Your task to perform on an android device: clear all cookies in the chrome app Image 0: 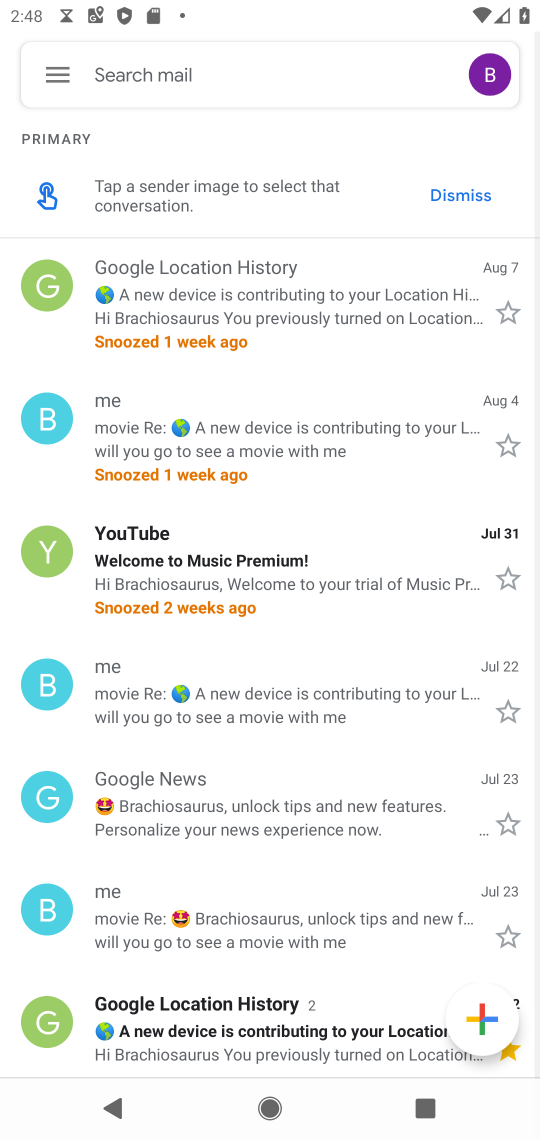
Step 0: press home button
Your task to perform on an android device: clear all cookies in the chrome app Image 1: 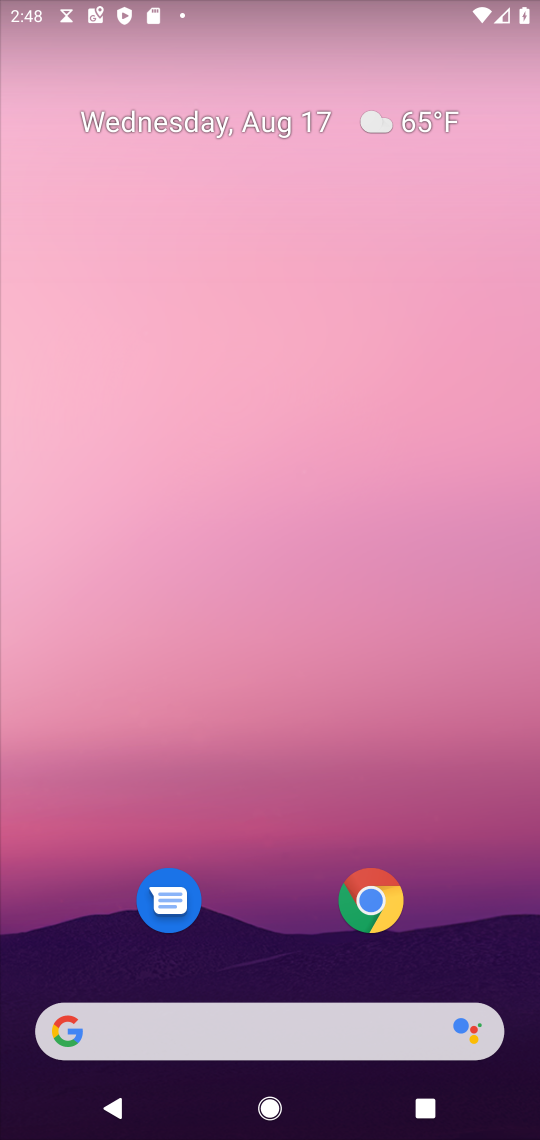
Step 1: click (379, 901)
Your task to perform on an android device: clear all cookies in the chrome app Image 2: 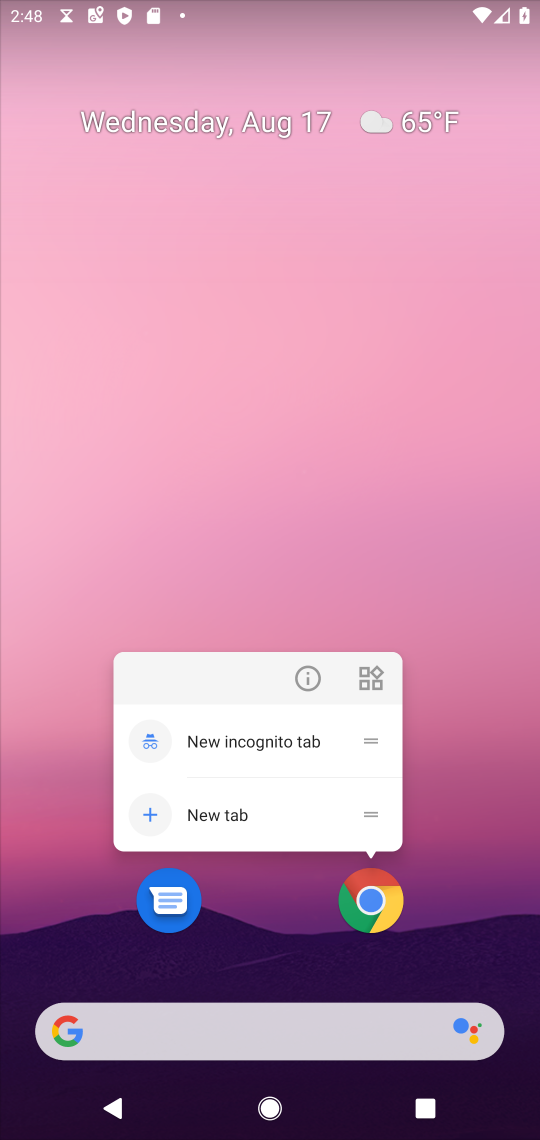
Step 2: click (379, 901)
Your task to perform on an android device: clear all cookies in the chrome app Image 3: 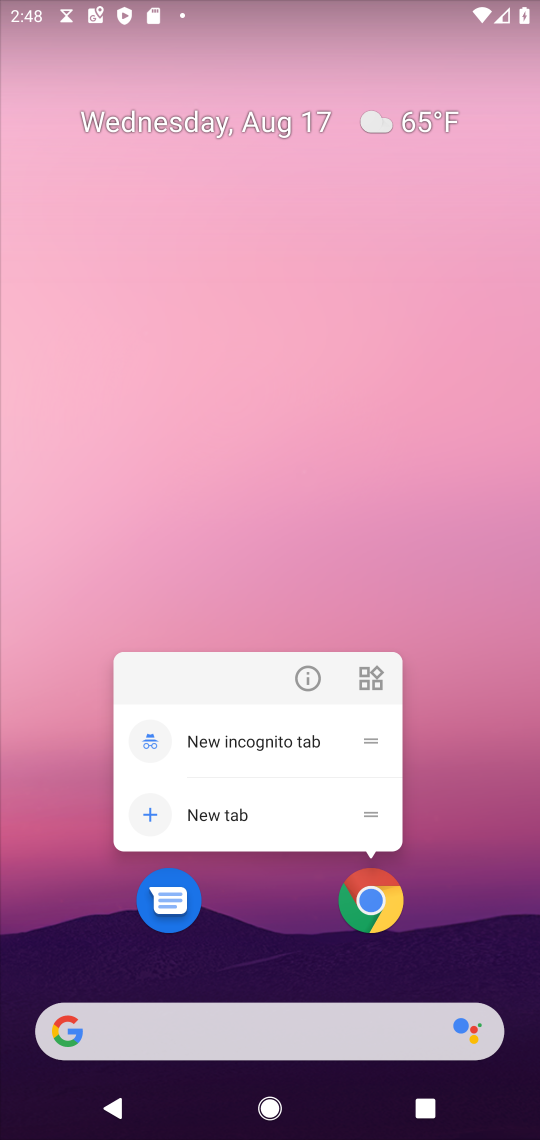
Step 3: click (379, 899)
Your task to perform on an android device: clear all cookies in the chrome app Image 4: 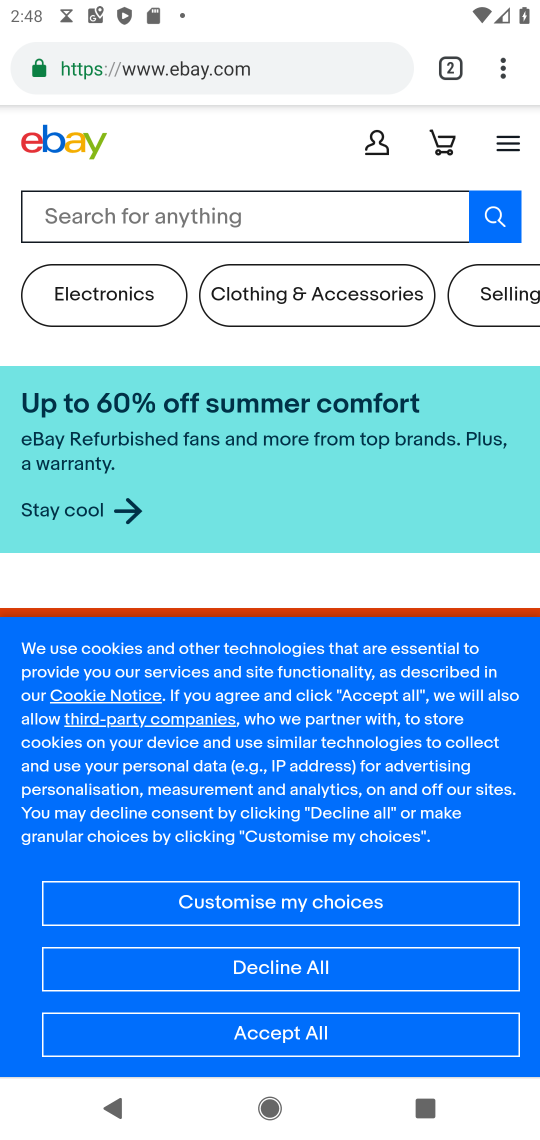
Step 4: drag from (502, 67) to (298, 905)
Your task to perform on an android device: clear all cookies in the chrome app Image 5: 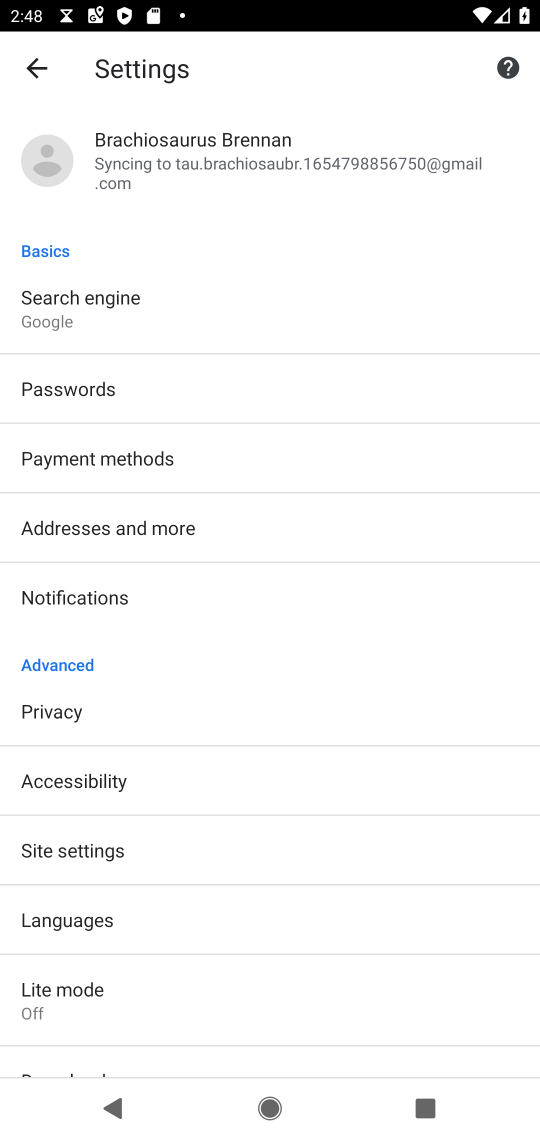
Step 5: drag from (168, 964) to (412, 300)
Your task to perform on an android device: clear all cookies in the chrome app Image 6: 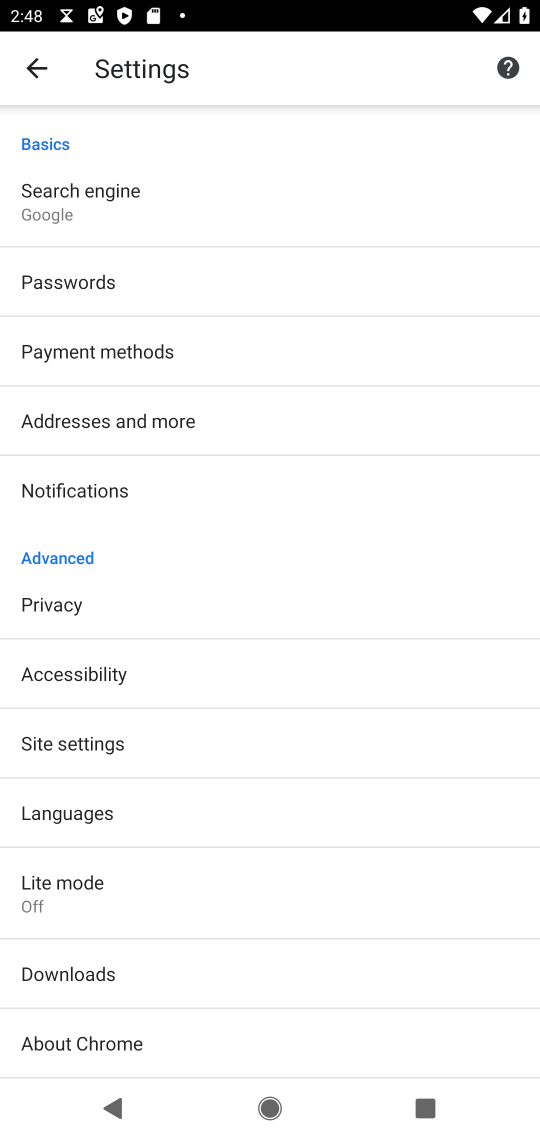
Step 6: click (71, 609)
Your task to perform on an android device: clear all cookies in the chrome app Image 7: 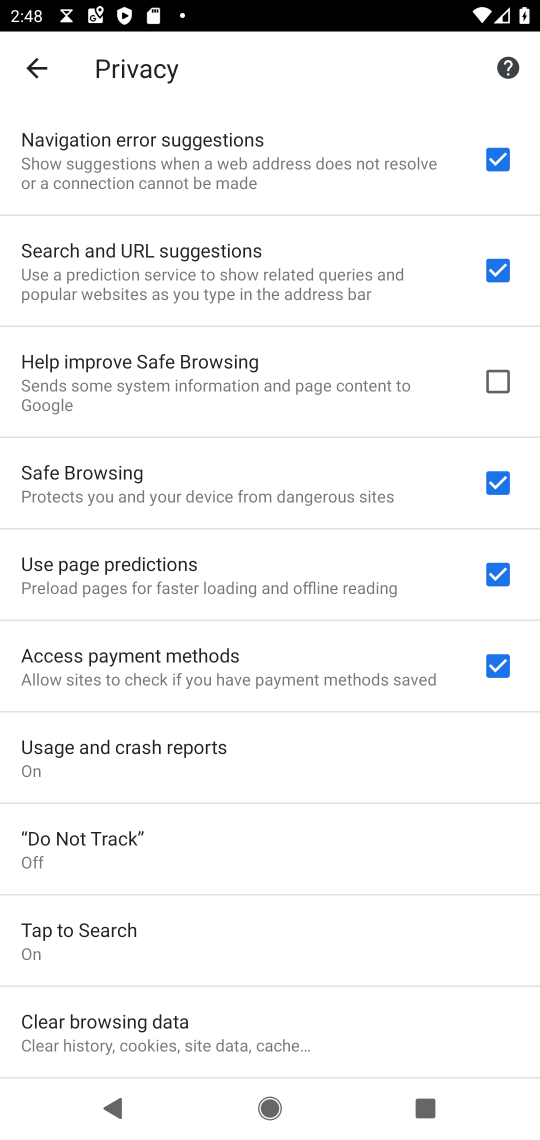
Step 7: drag from (301, 1021) to (348, 187)
Your task to perform on an android device: clear all cookies in the chrome app Image 8: 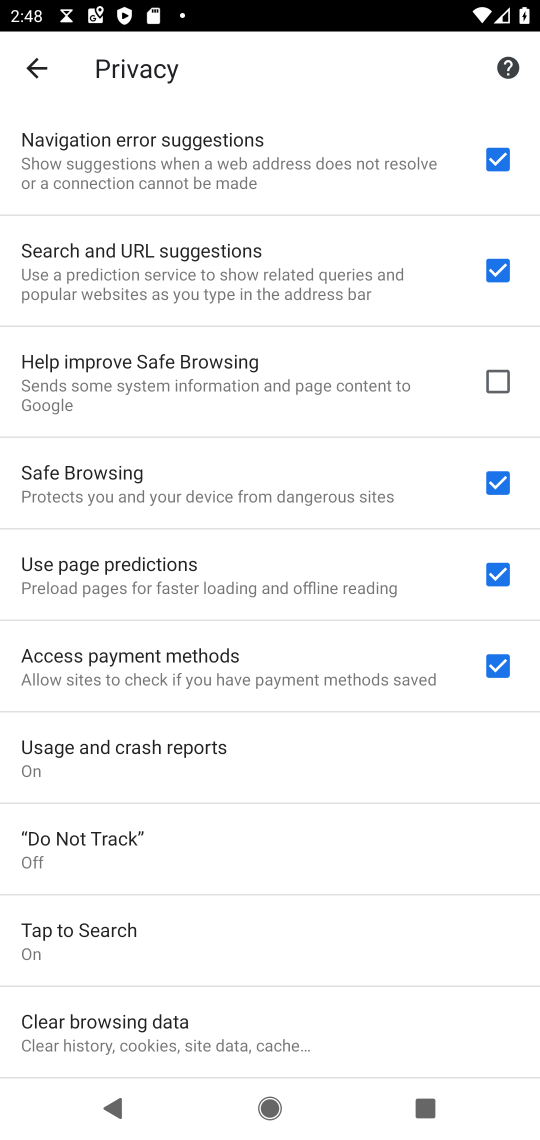
Step 8: click (248, 1043)
Your task to perform on an android device: clear all cookies in the chrome app Image 9: 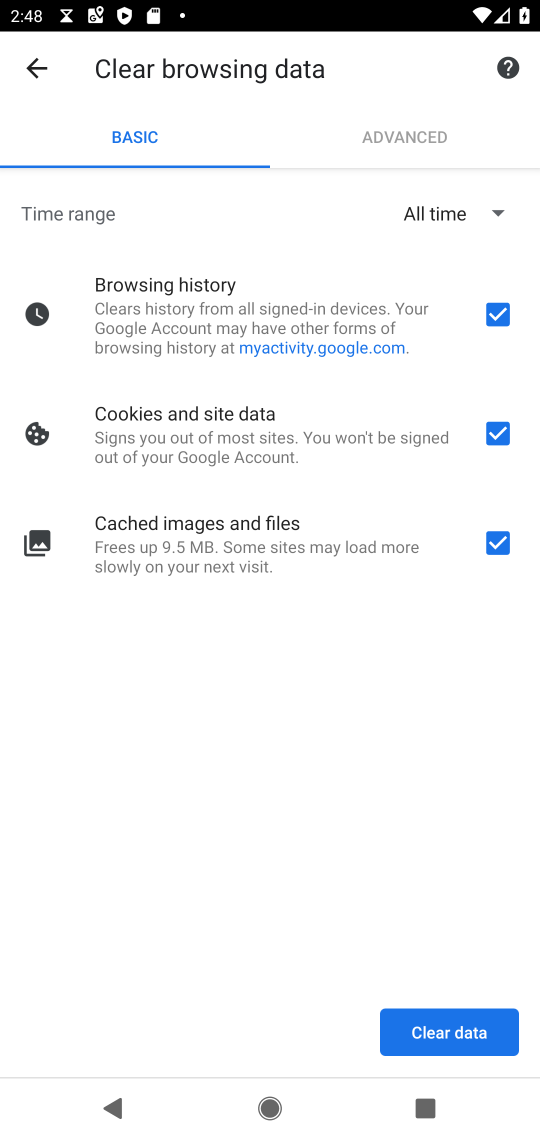
Step 9: click (499, 303)
Your task to perform on an android device: clear all cookies in the chrome app Image 10: 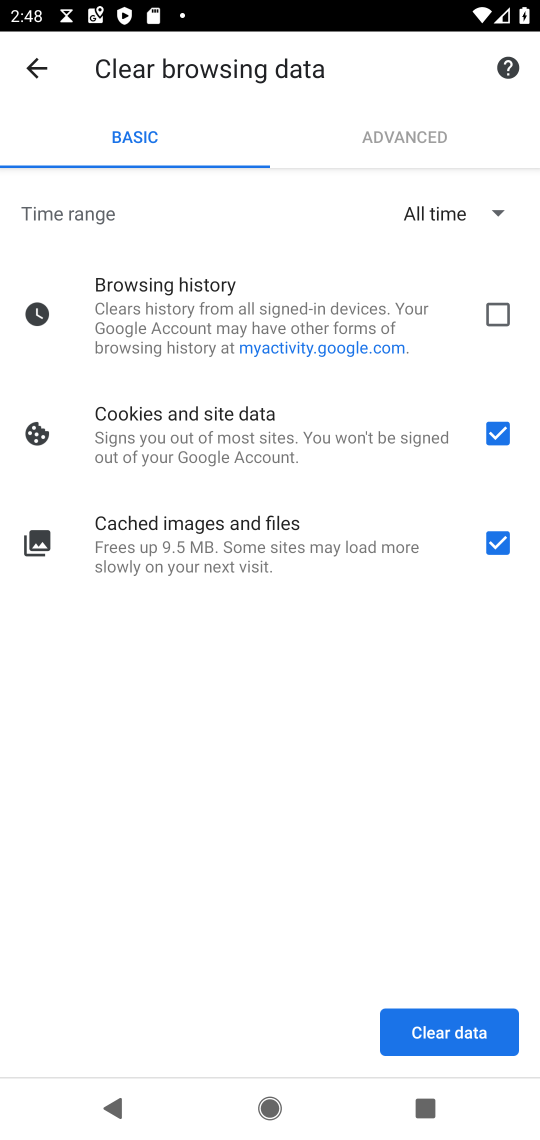
Step 10: click (497, 548)
Your task to perform on an android device: clear all cookies in the chrome app Image 11: 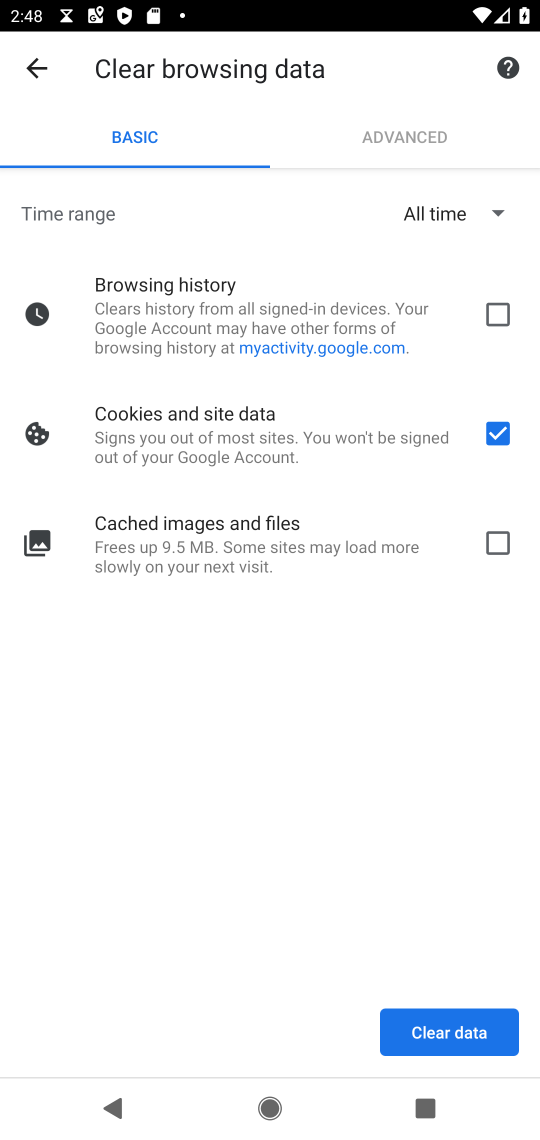
Step 11: click (454, 1029)
Your task to perform on an android device: clear all cookies in the chrome app Image 12: 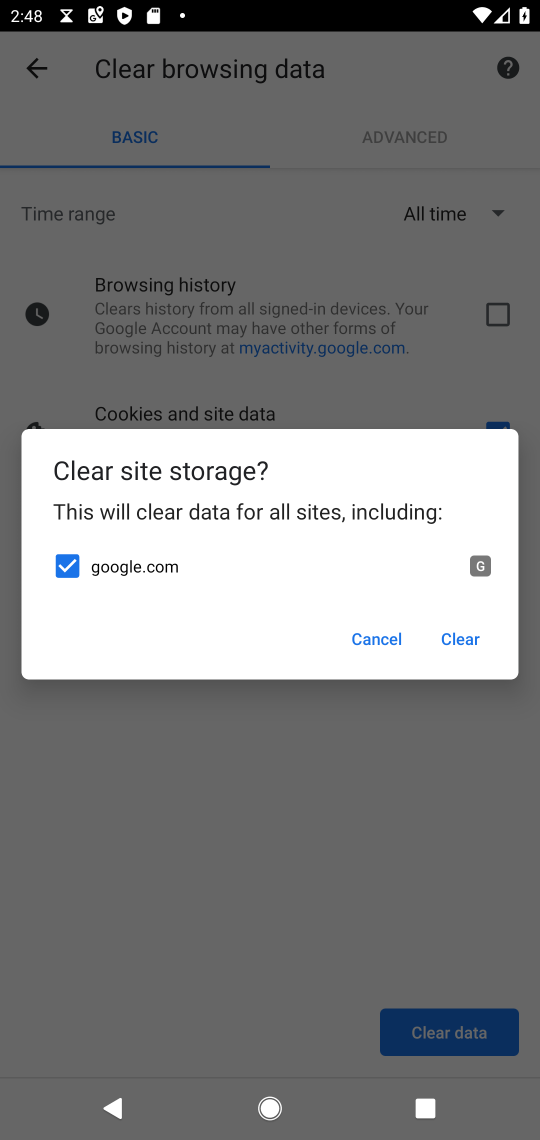
Step 12: click (468, 638)
Your task to perform on an android device: clear all cookies in the chrome app Image 13: 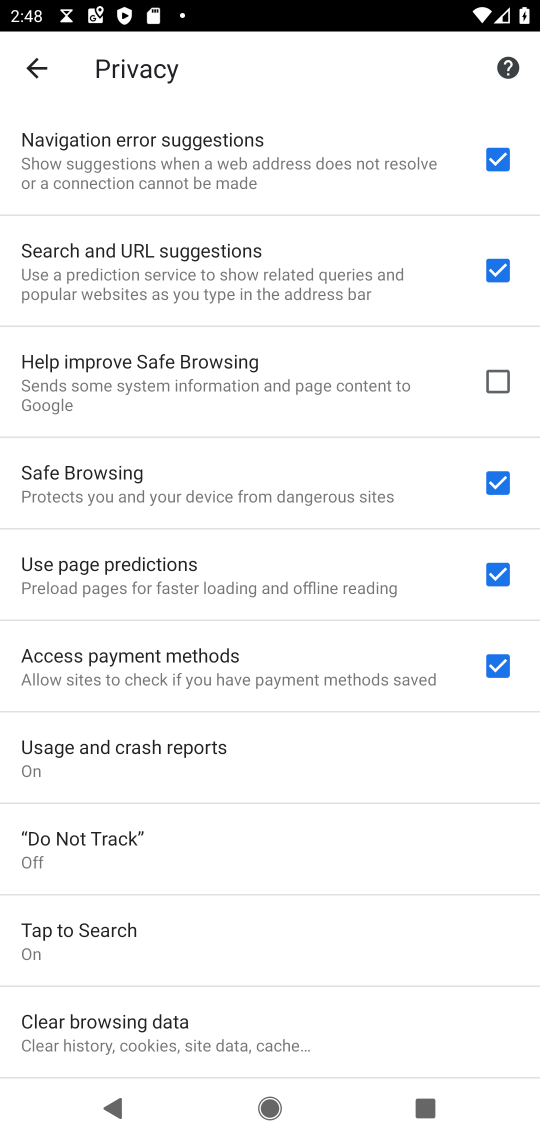
Step 13: task complete